Your task to perform on an android device: Show me recent news Image 0: 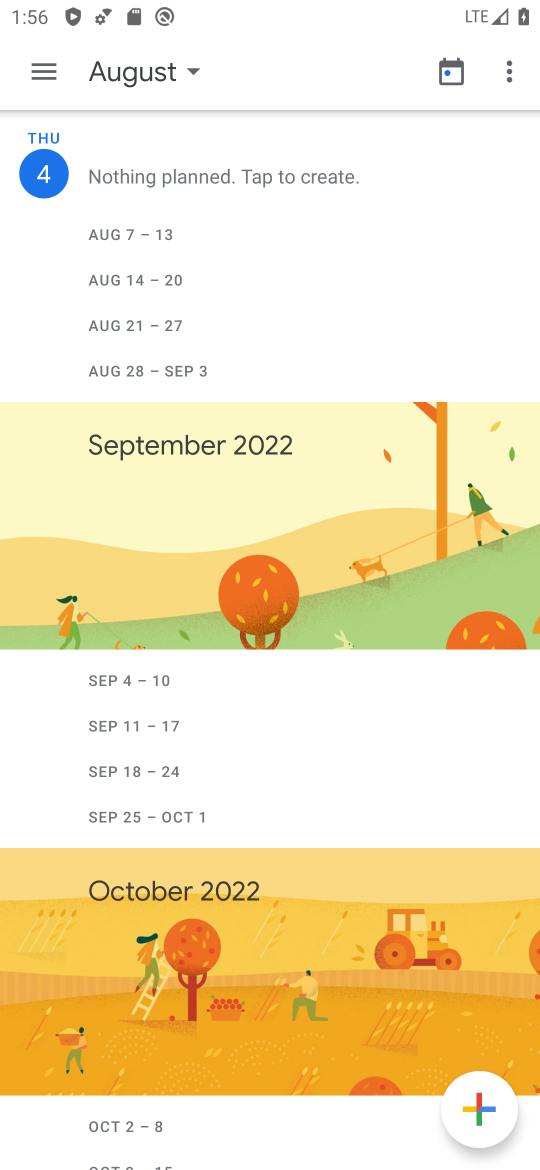
Step 0: task complete